Your task to perform on an android device: toggle javascript in the chrome app Image 0: 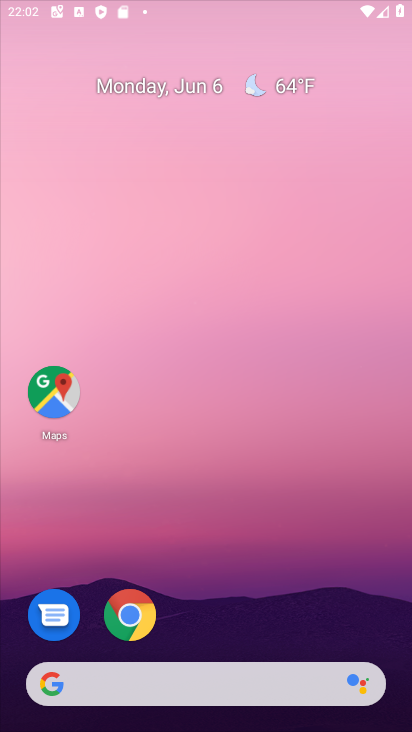
Step 0: drag from (397, 703) to (392, 162)
Your task to perform on an android device: toggle javascript in the chrome app Image 1: 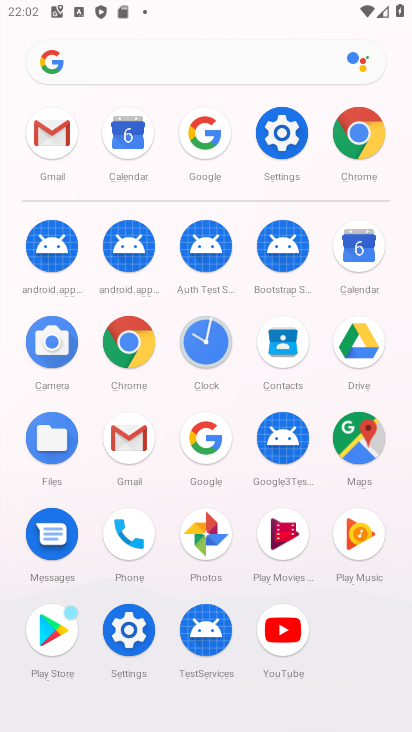
Step 1: click (353, 138)
Your task to perform on an android device: toggle javascript in the chrome app Image 2: 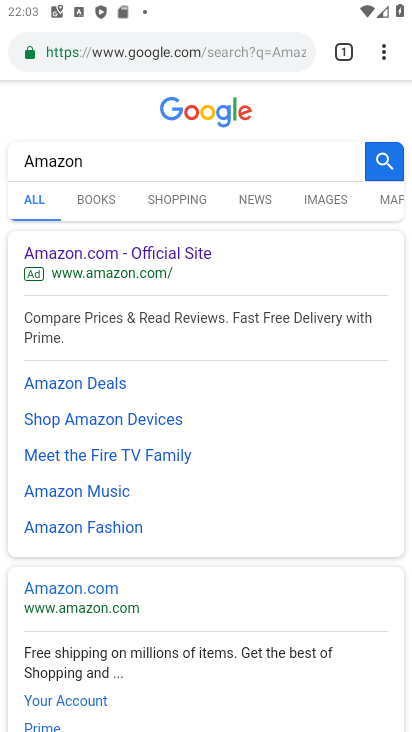
Step 2: click (381, 48)
Your task to perform on an android device: toggle javascript in the chrome app Image 3: 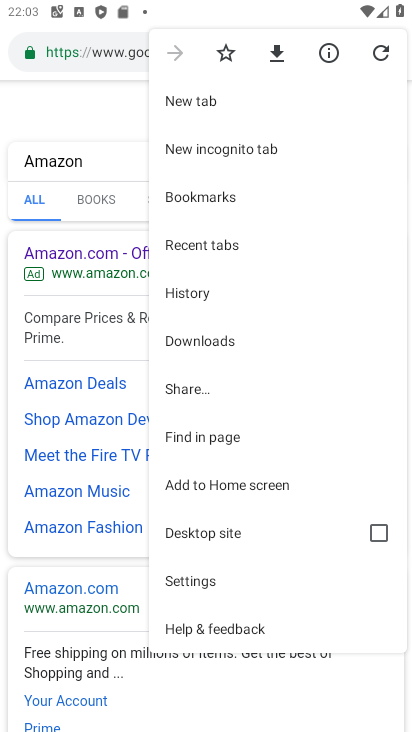
Step 3: click (183, 579)
Your task to perform on an android device: toggle javascript in the chrome app Image 4: 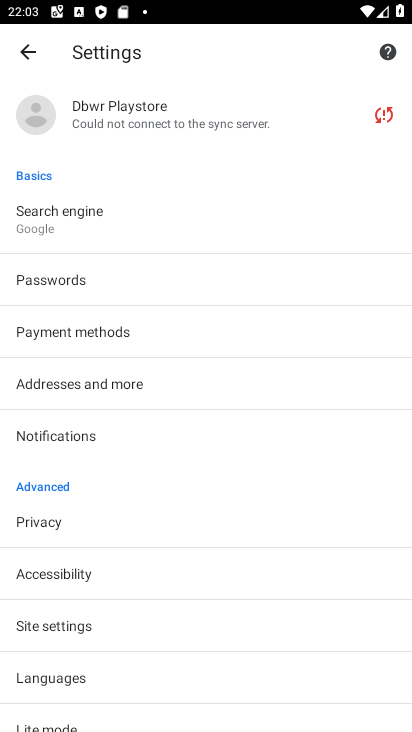
Step 4: click (94, 613)
Your task to perform on an android device: toggle javascript in the chrome app Image 5: 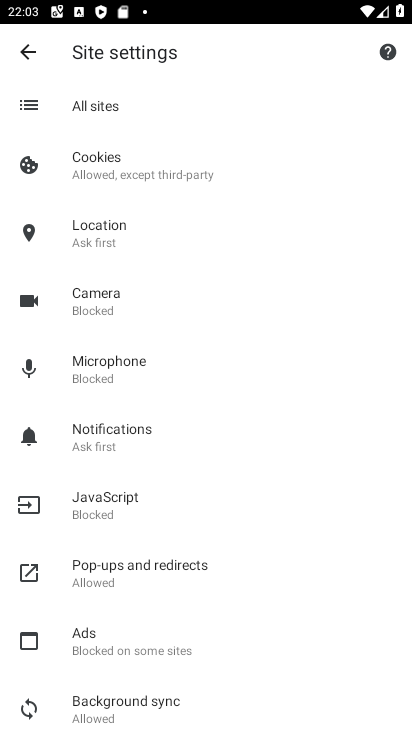
Step 5: click (106, 501)
Your task to perform on an android device: toggle javascript in the chrome app Image 6: 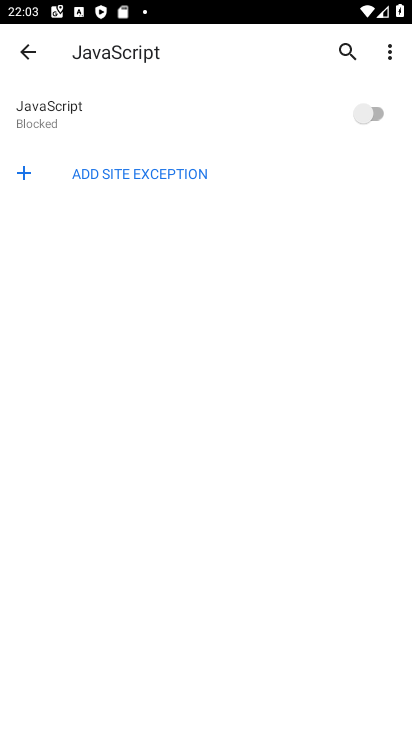
Step 6: click (369, 115)
Your task to perform on an android device: toggle javascript in the chrome app Image 7: 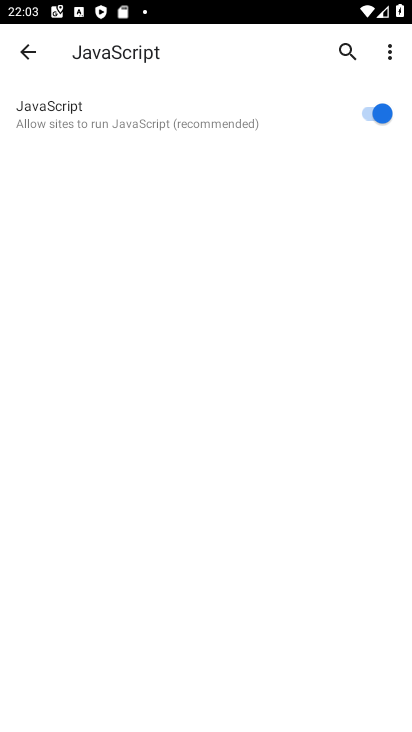
Step 7: task complete